Your task to perform on an android device: Go to calendar. Show me events next week Image 0: 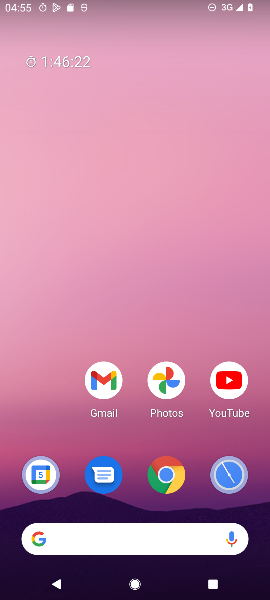
Step 0: drag from (58, 422) to (62, 205)
Your task to perform on an android device: Go to calendar. Show me events next week Image 1: 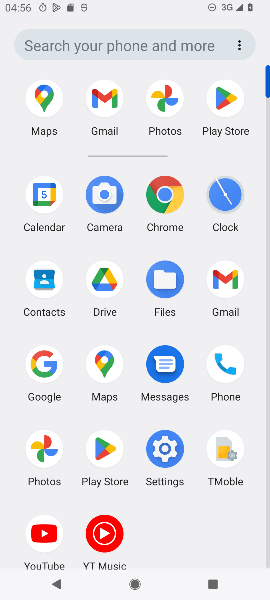
Step 1: click (47, 196)
Your task to perform on an android device: Go to calendar. Show me events next week Image 2: 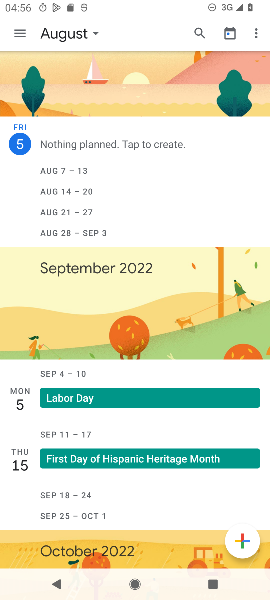
Step 2: click (92, 30)
Your task to perform on an android device: Go to calendar. Show me events next week Image 3: 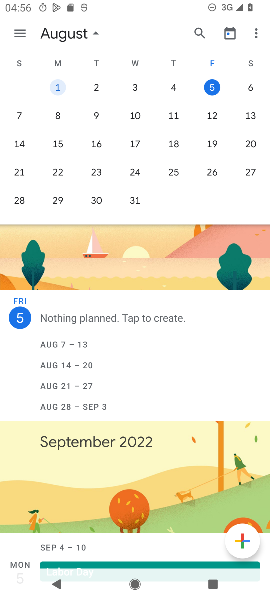
Step 3: click (55, 113)
Your task to perform on an android device: Go to calendar. Show me events next week Image 4: 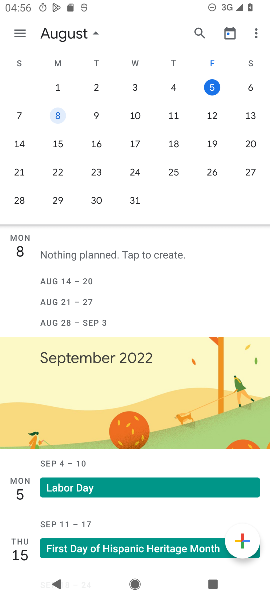
Step 4: task complete